Your task to perform on an android device: turn pop-ups on in chrome Image 0: 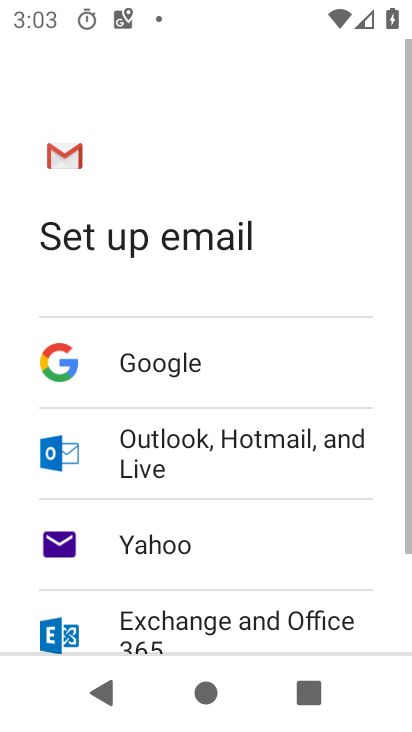
Step 0: press home button
Your task to perform on an android device: turn pop-ups on in chrome Image 1: 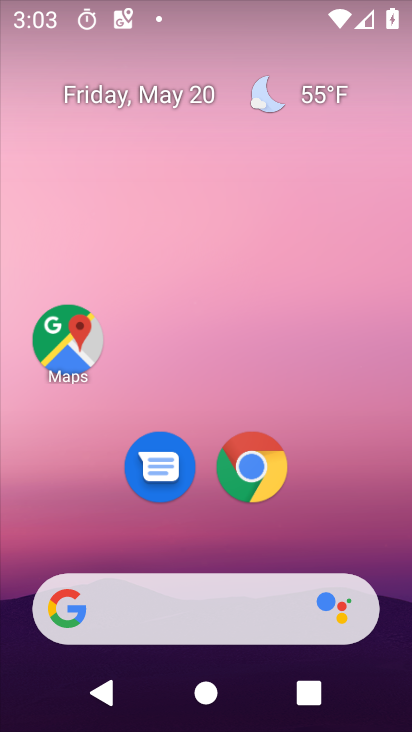
Step 1: click (249, 470)
Your task to perform on an android device: turn pop-ups on in chrome Image 2: 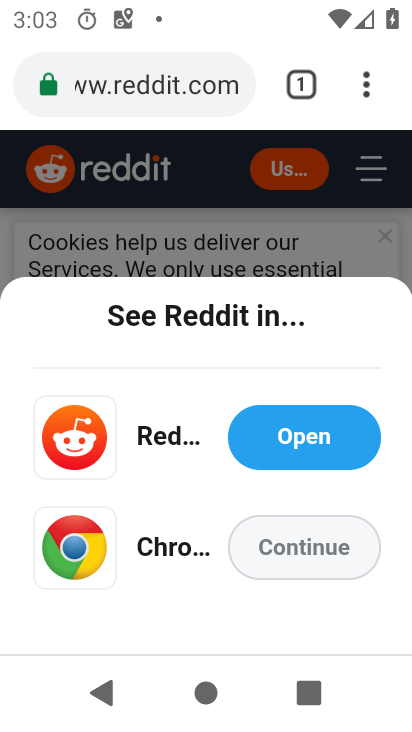
Step 2: click (369, 86)
Your task to perform on an android device: turn pop-ups on in chrome Image 3: 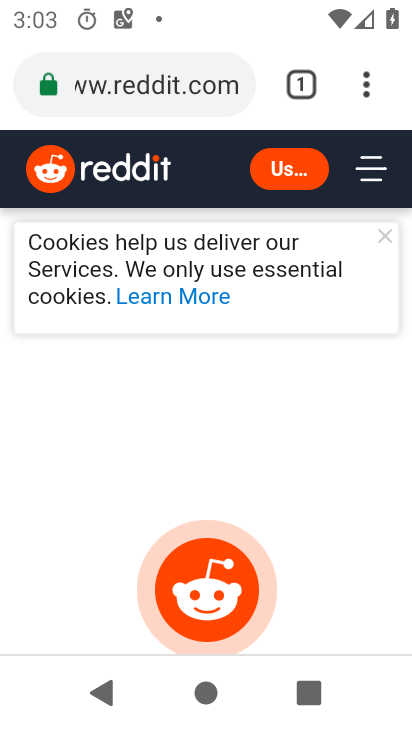
Step 3: click (369, 88)
Your task to perform on an android device: turn pop-ups on in chrome Image 4: 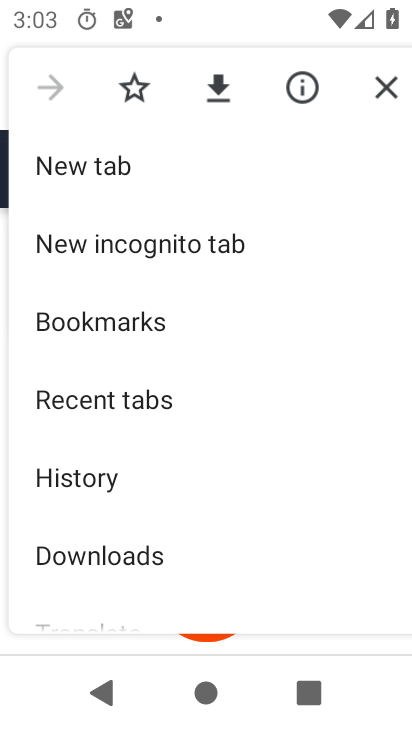
Step 4: drag from (141, 546) to (164, 236)
Your task to perform on an android device: turn pop-ups on in chrome Image 5: 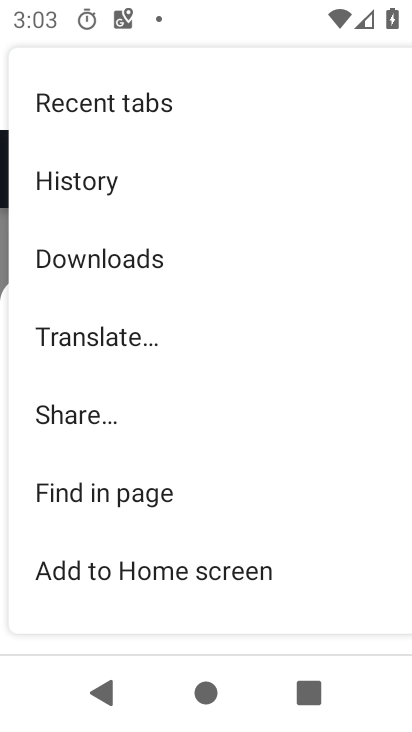
Step 5: drag from (180, 487) to (187, 258)
Your task to perform on an android device: turn pop-ups on in chrome Image 6: 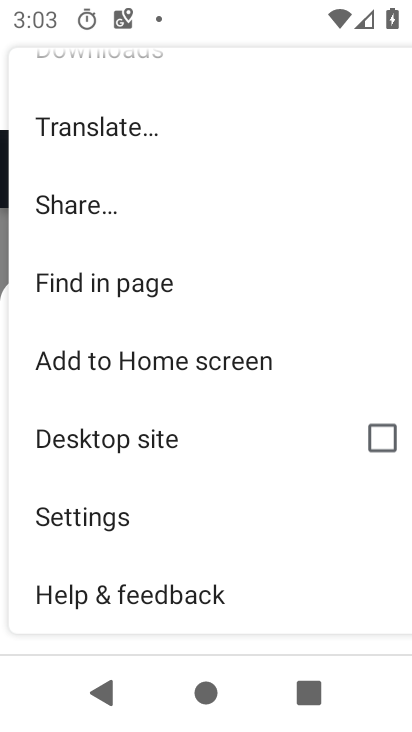
Step 6: click (129, 531)
Your task to perform on an android device: turn pop-ups on in chrome Image 7: 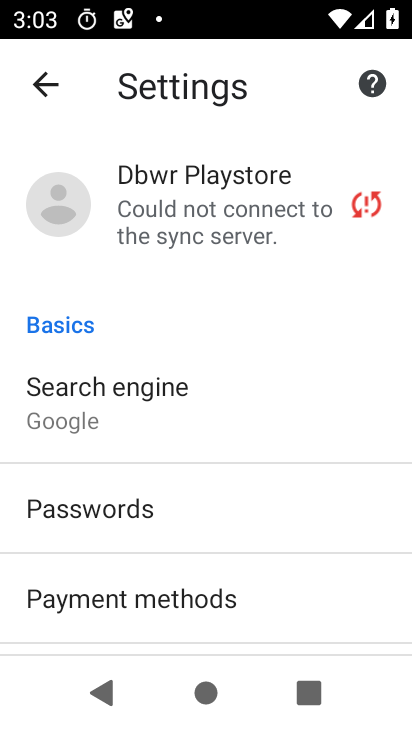
Step 7: drag from (203, 582) to (183, 339)
Your task to perform on an android device: turn pop-ups on in chrome Image 8: 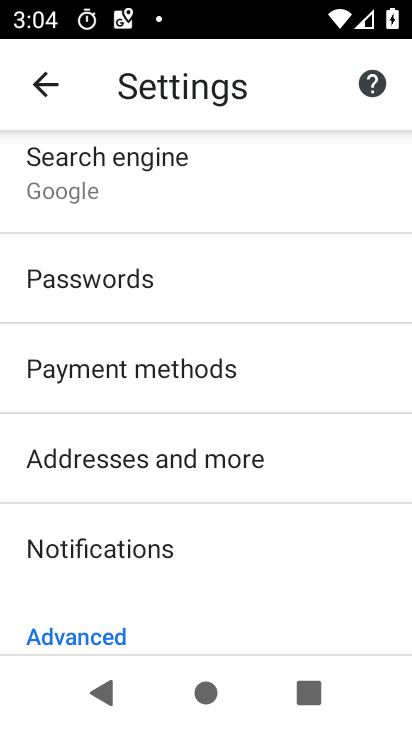
Step 8: drag from (191, 617) to (214, 315)
Your task to perform on an android device: turn pop-ups on in chrome Image 9: 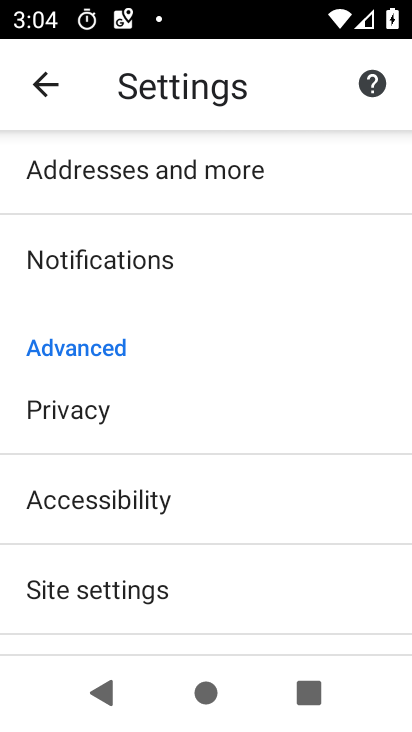
Step 9: click (118, 591)
Your task to perform on an android device: turn pop-ups on in chrome Image 10: 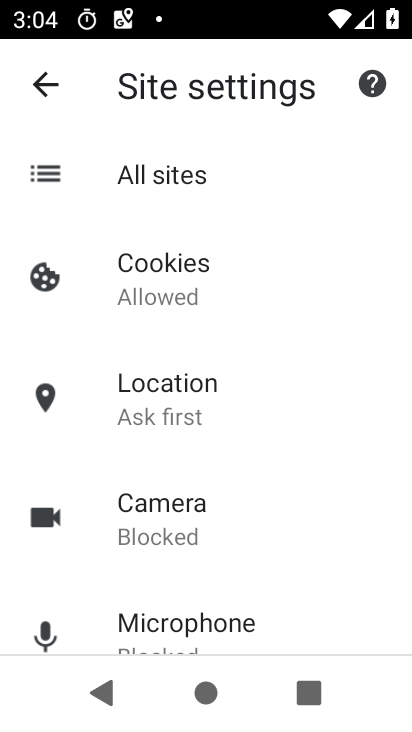
Step 10: drag from (178, 596) to (193, 297)
Your task to perform on an android device: turn pop-ups on in chrome Image 11: 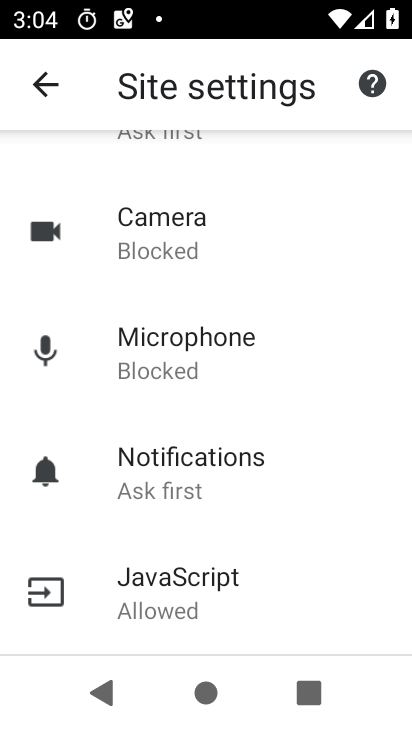
Step 11: drag from (119, 617) to (111, 413)
Your task to perform on an android device: turn pop-ups on in chrome Image 12: 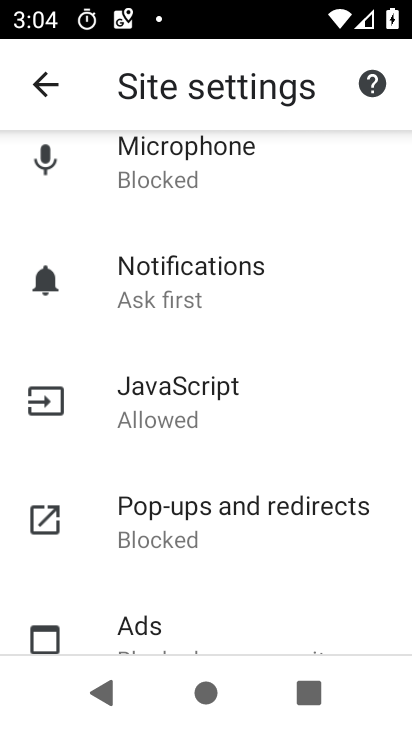
Step 12: click (193, 534)
Your task to perform on an android device: turn pop-ups on in chrome Image 13: 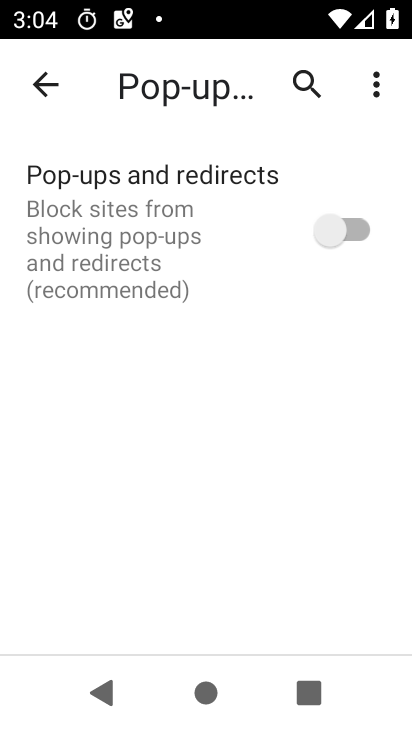
Step 13: click (336, 228)
Your task to perform on an android device: turn pop-ups on in chrome Image 14: 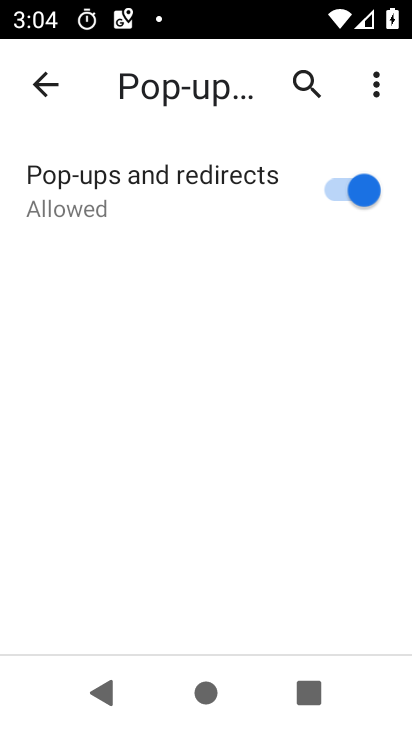
Step 14: task complete